Your task to perform on an android device: move a message to another label in the gmail app Image 0: 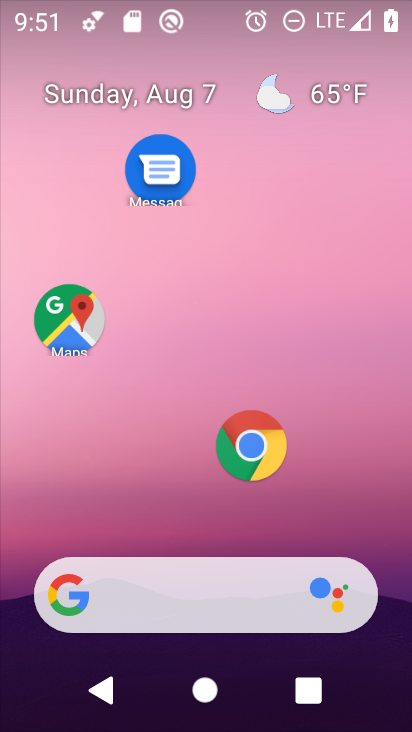
Step 0: press home button
Your task to perform on an android device: move a message to another label in the gmail app Image 1: 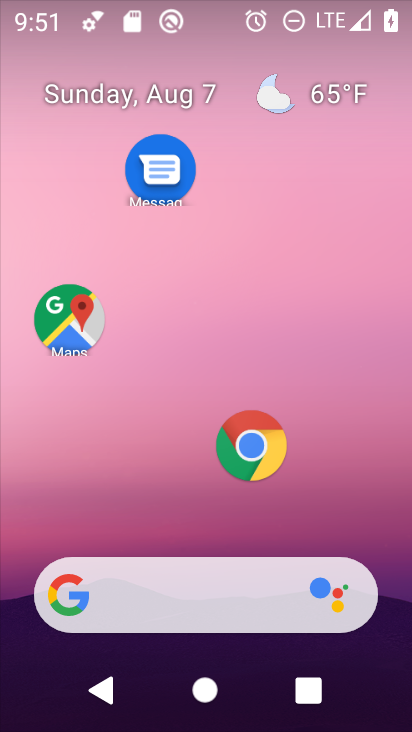
Step 1: drag from (199, 538) to (196, 8)
Your task to perform on an android device: move a message to another label in the gmail app Image 2: 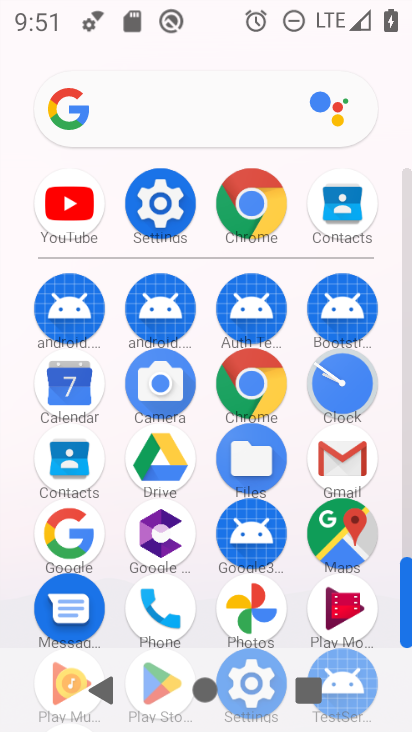
Step 2: click (336, 445)
Your task to perform on an android device: move a message to another label in the gmail app Image 3: 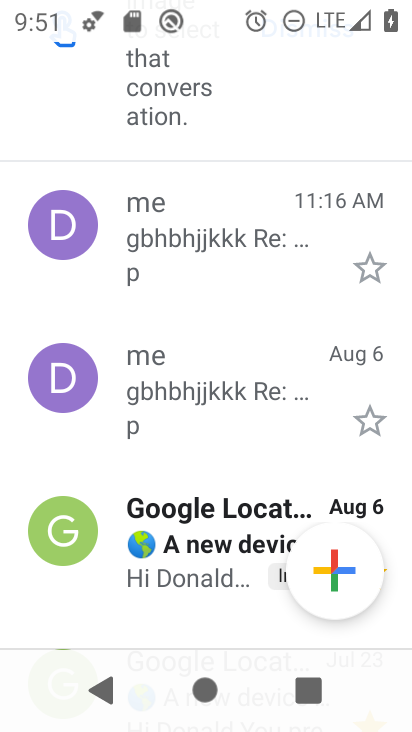
Step 3: click (50, 526)
Your task to perform on an android device: move a message to another label in the gmail app Image 4: 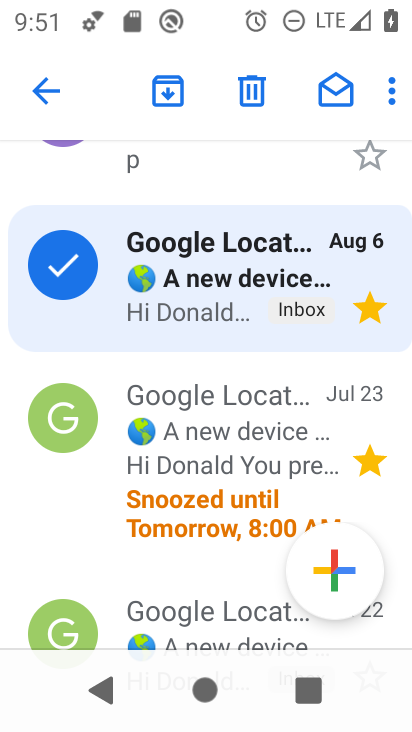
Step 4: click (387, 88)
Your task to perform on an android device: move a message to another label in the gmail app Image 5: 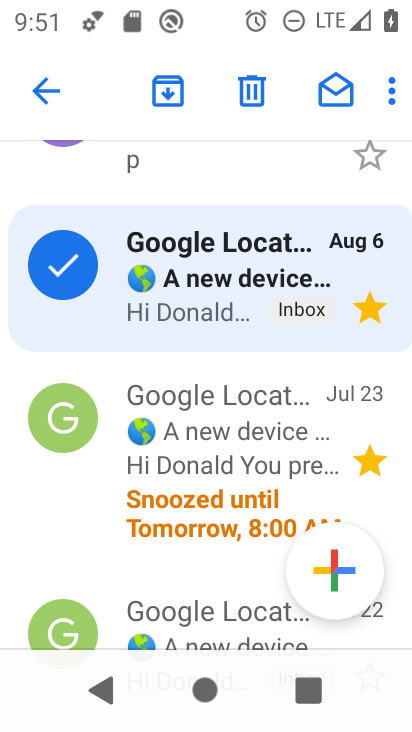
Step 5: click (393, 88)
Your task to perform on an android device: move a message to another label in the gmail app Image 6: 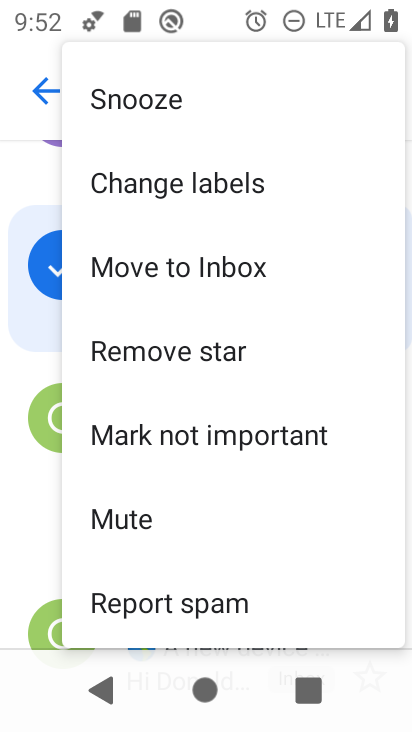
Step 6: click (261, 269)
Your task to perform on an android device: move a message to another label in the gmail app Image 7: 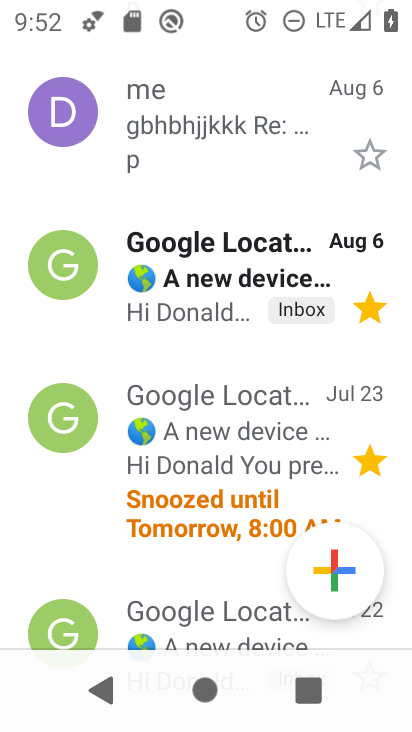
Step 7: task complete